Your task to perform on an android device: Go to internet settings Image 0: 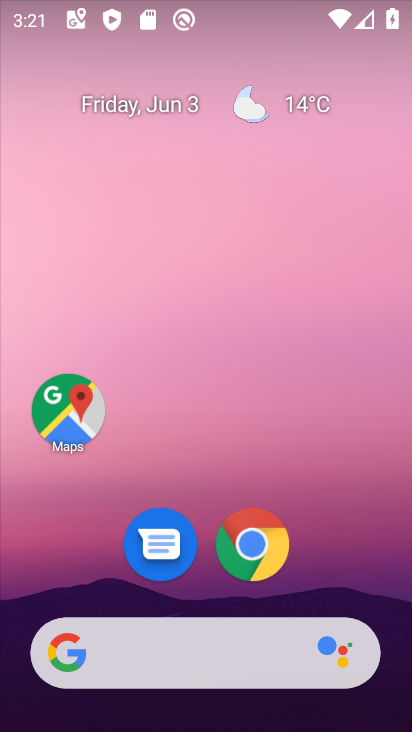
Step 0: press home button
Your task to perform on an android device: Go to internet settings Image 1: 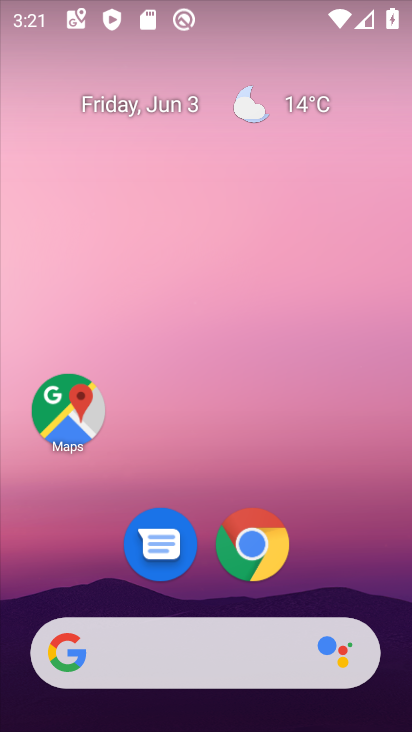
Step 1: drag from (397, 622) to (331, 38)
Your task to perform on an android device: Go to internet settings Image 2: 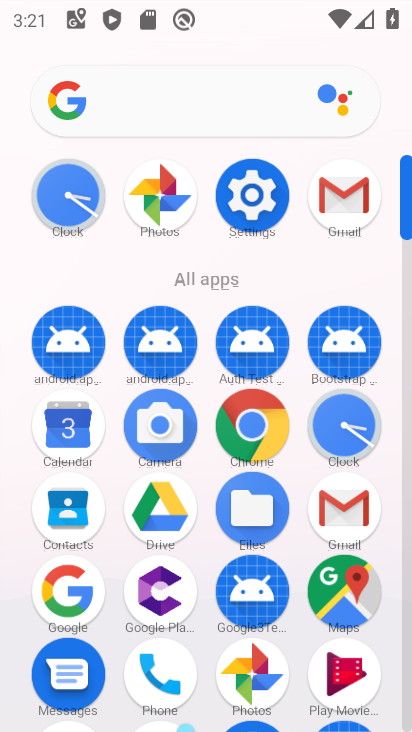
Step 2: click (405, 674)
Your task to perform on an android device: Go to internet settings Image 3: 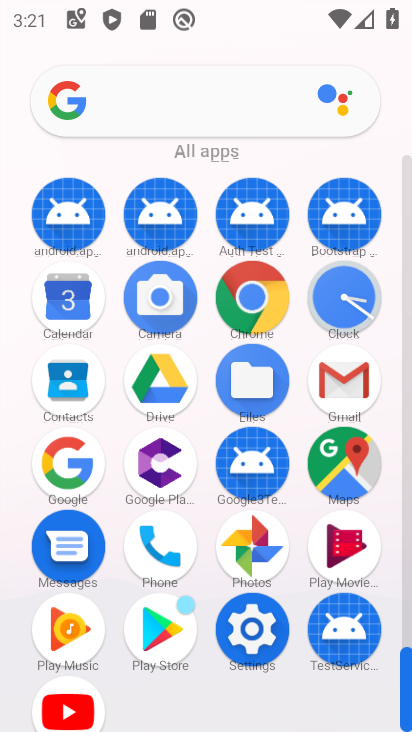
Step 3: click (251, 630)
Your task to perform on an android device: Go to internet settings Image 4: 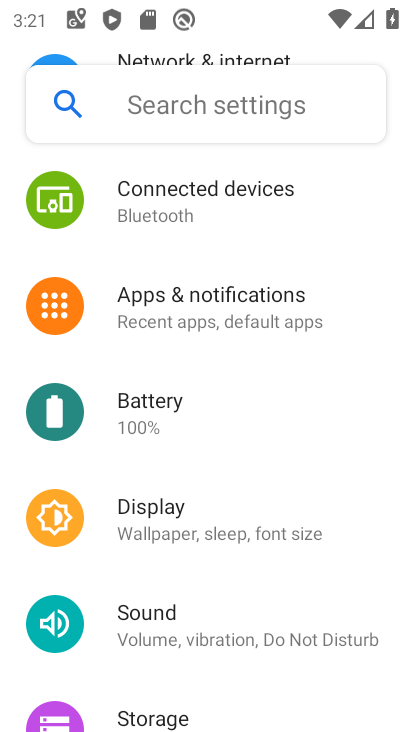
Step 4: drag from (338, 206) to (323, 498)
Your task to perform on an android device: Go to internet settings Image 5: 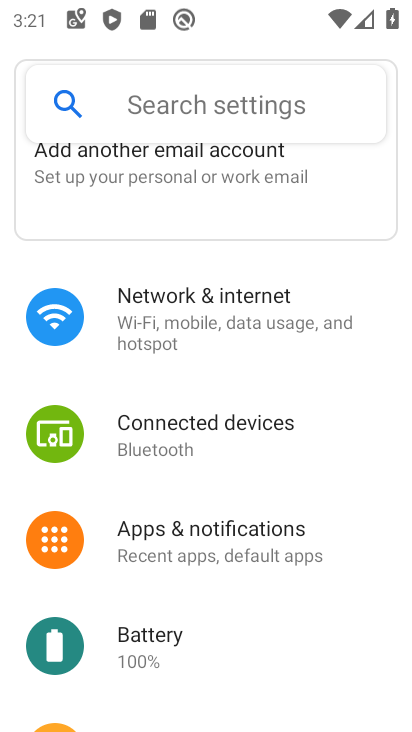
Step 5: click (152, 310)
Your task to perform on an android device: Go to internet settings Image 6: 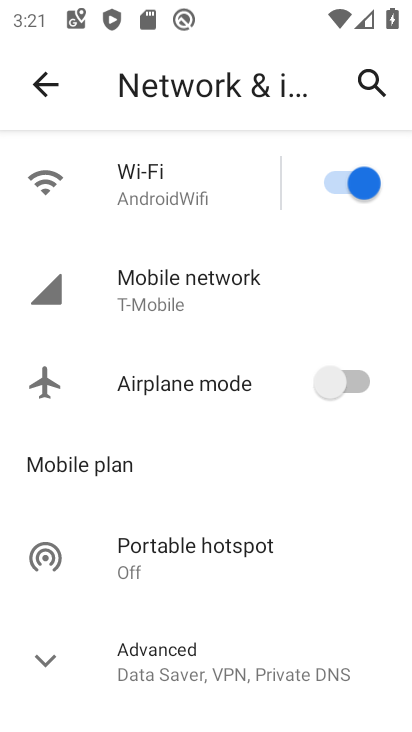
Step 6: click (38, 656)
Your task to perform on an android device: Go to internet settings Image 7: 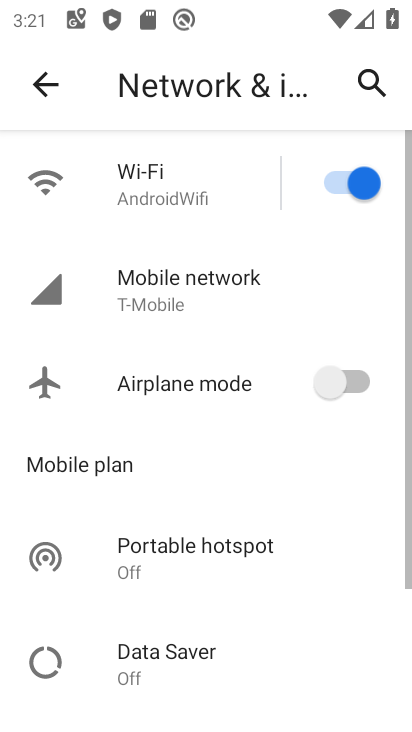
Step 7: task complete